Your task to perform on an android device: Open eBay Image 0: 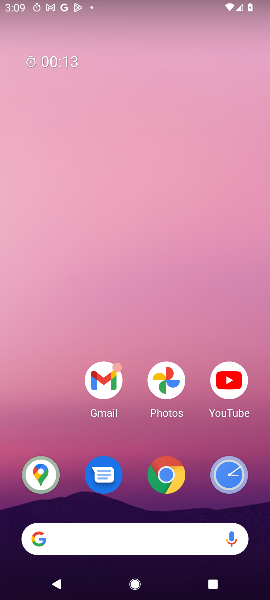
Step 0: press home button
Your task to perform on an android device: Open eBay Image 1: 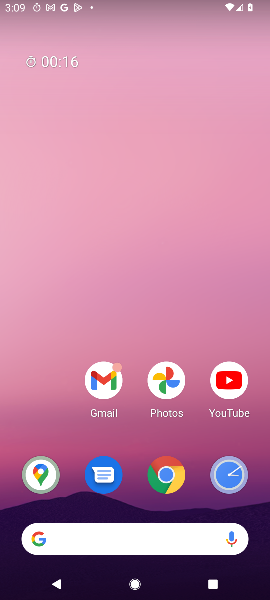
Step 1: drag from (58, 419) to (65, 168)
Your task to perform on an android device: Open eBay Image 2: 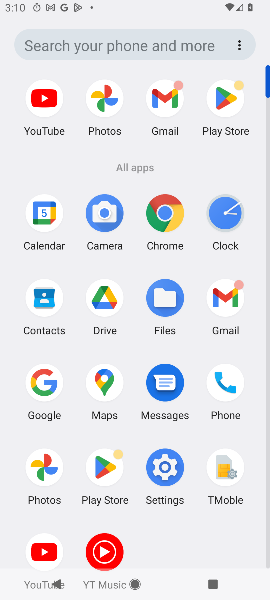
Step 2: click (169, 219)
Your task to perform on an android device: Open eBay Image 3: 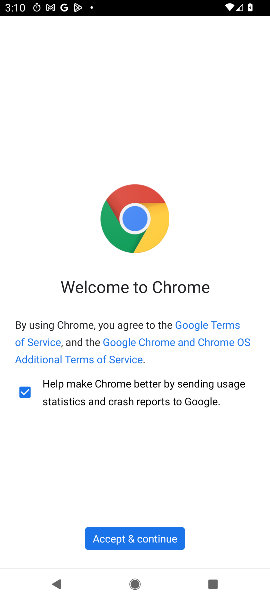
Step 3: click (126, 538)
Your task to perform on an android device: Open eBay Image 4: 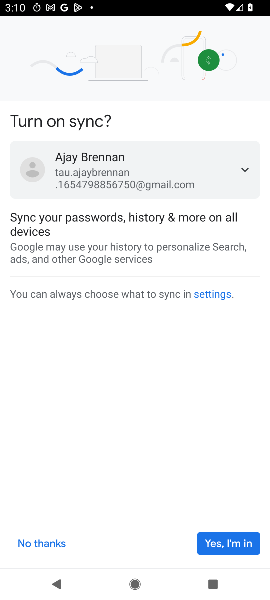
Step 4: click (228, 543)
Your task to perform on an android device: Open eBay Image 5: 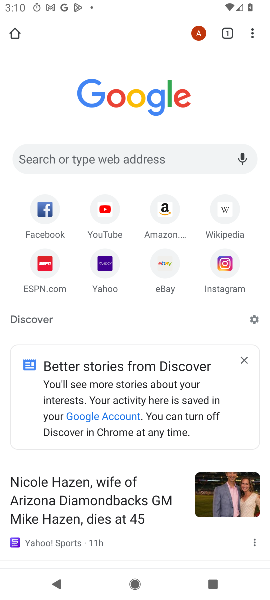
Step 5: click (146, 157)
Your task to perform on an android device: Open eBay Image 6: 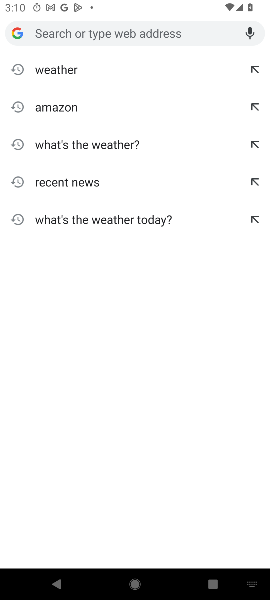
Step 6: type "ebay"
Your task to perform on an android device: Open eBay Image 7: 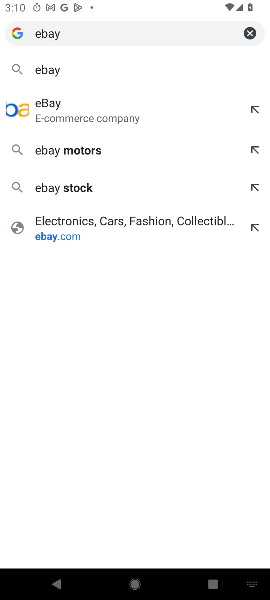
Step 7: click (141, 117)
Your task to perform on an android device: Open eBay Image 8: 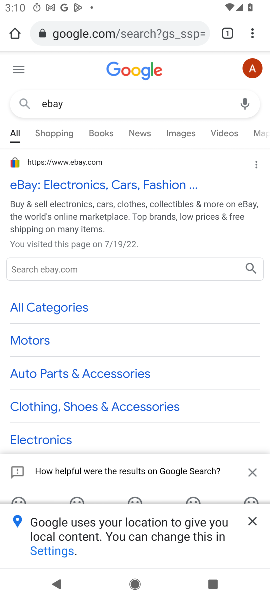
Step 8: task complete